Your task to perform on an android device: change the clock display to show seconds Image 0: 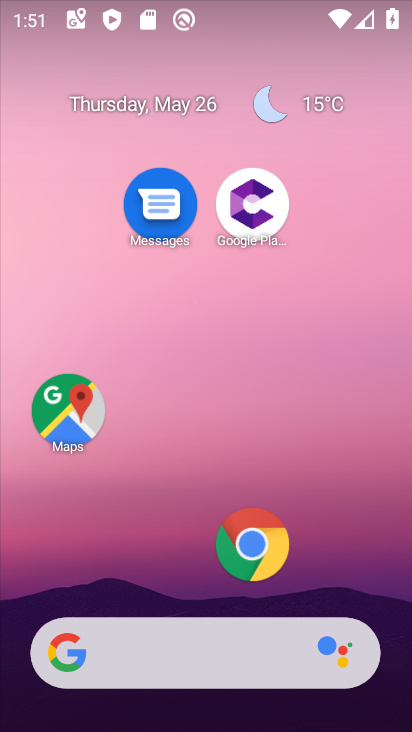
Step 0: drag from (304, 565) to (256, 226)
Your task to perform on an android device: change the clock display to show seconds Image 1: 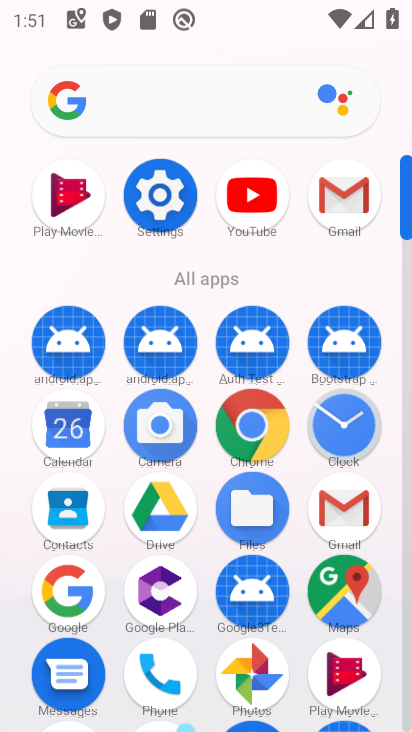
Step 1: click (326, 419)
Your task to perform on an android device: change the clock display to show seconds Image 2: 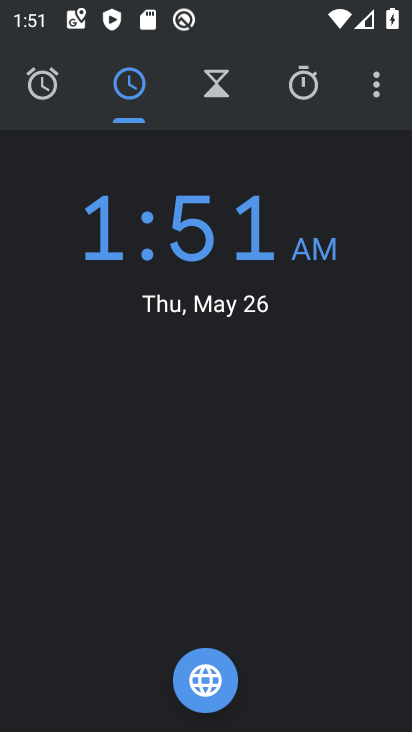
Step 2: click (388, 75)
Your task to perform on an android device: change the clock display to show seconds Image 3: 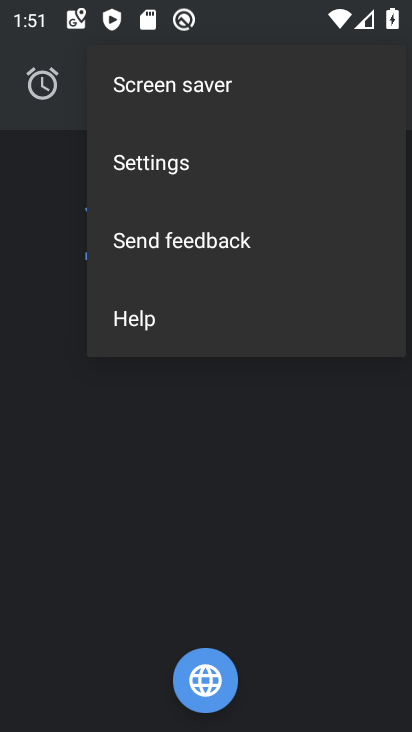
Step 3: click (170, 171)
Your task to perform on an android device: change the clock display to show seconds Image 4: 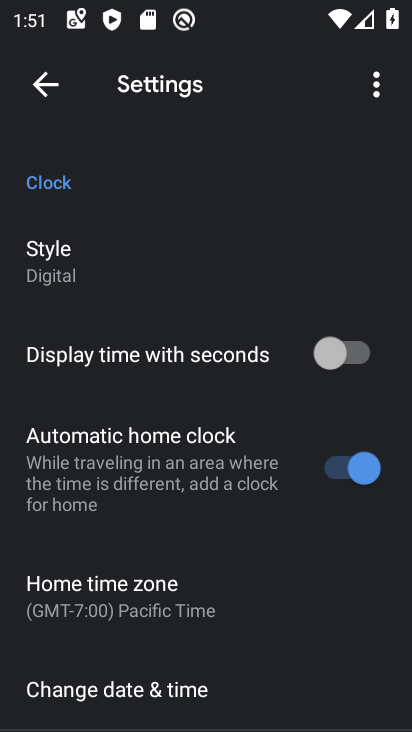
Step 4: click (356, 347)
Your task to perform on an android device: change the clock display to show seconds Image 5: 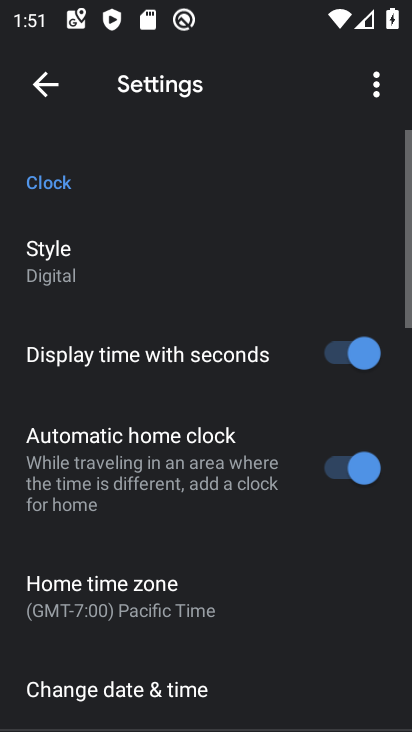
Step 5: task complete